Your task to perform on an android device: toggle wifi Image 0: 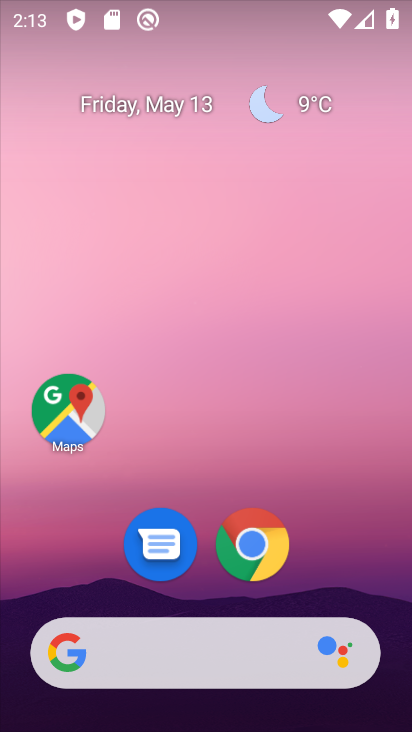
Step 0: drag from (205, 592) to (291, 41)
Your task to perform on an android device: toggle wifi Image 1: 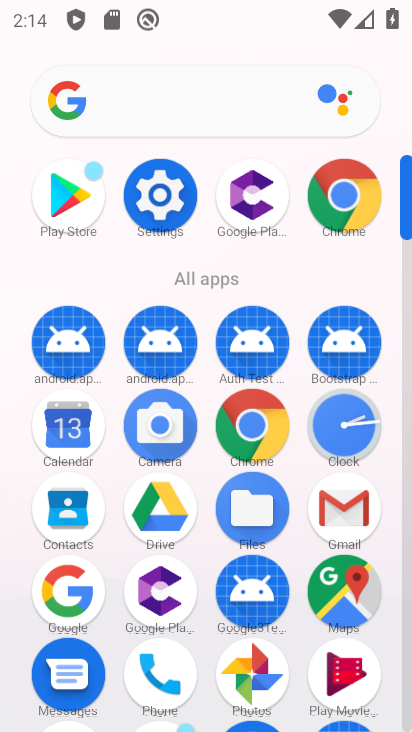
Step 1: drag from (80, 642) to (141, 399)
Your task to perform on an android device: toggle wifi Image 2: 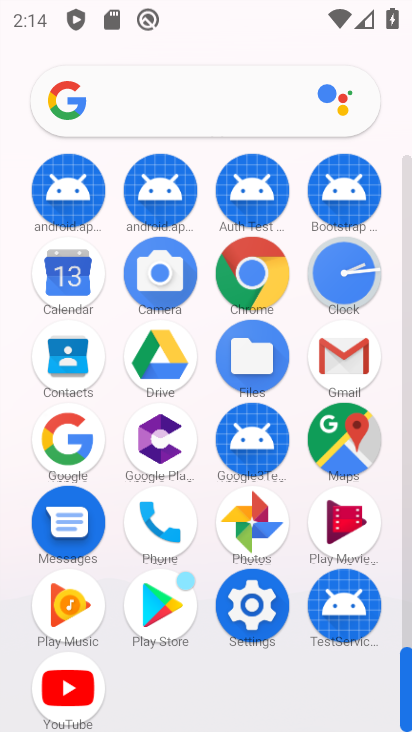
Step 2: click (244, 606)
Your task to perform on an android device: toggle wifi Image 3: 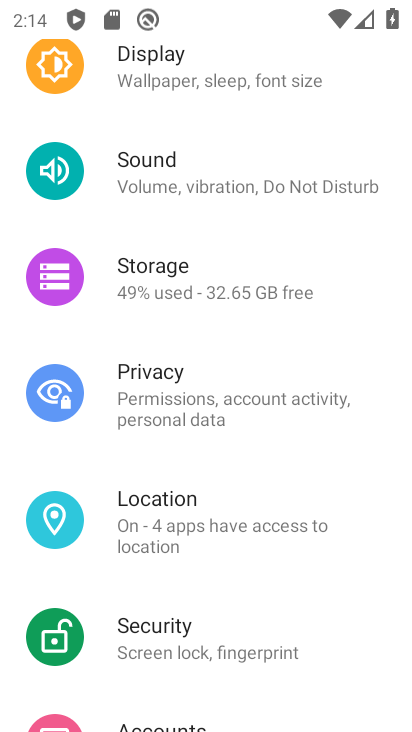
Step 3: drag from (185, 158) to (175, 505)
Your task to perform on an android device: toggle wifi Image 4: 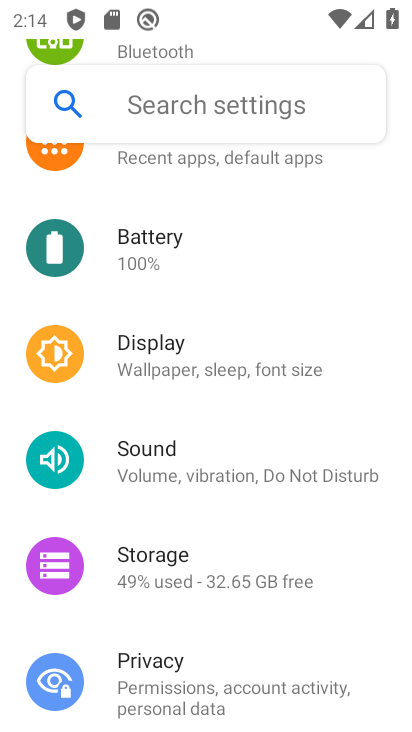
Step 4: drag from (235, 444) to (221, 650)
Your task to perform on an android device: toggle wifi Image 5: 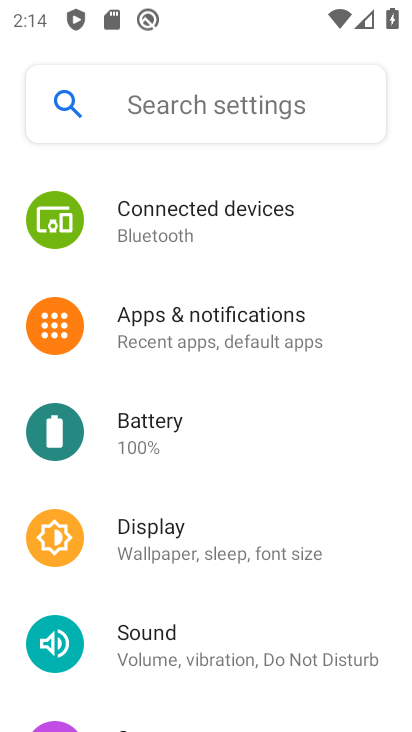
Step 5: drag from (256, 199) to (215, 637)
Your task to perform on an android device: toggle wifi Image 6: 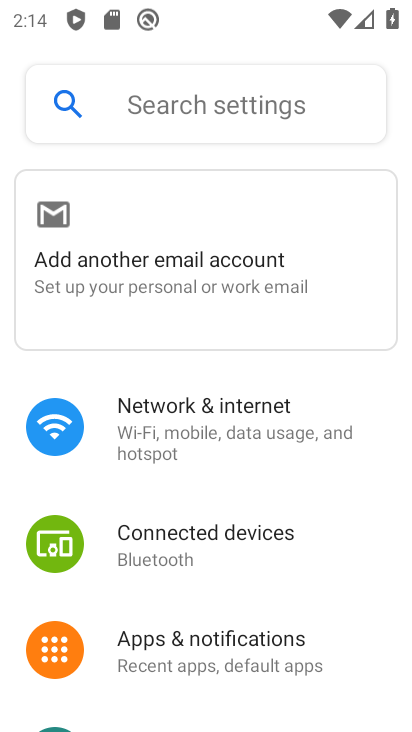
Step 6: click (175, 434)
Your task to perform on an android device: toggle wifi Image 7: 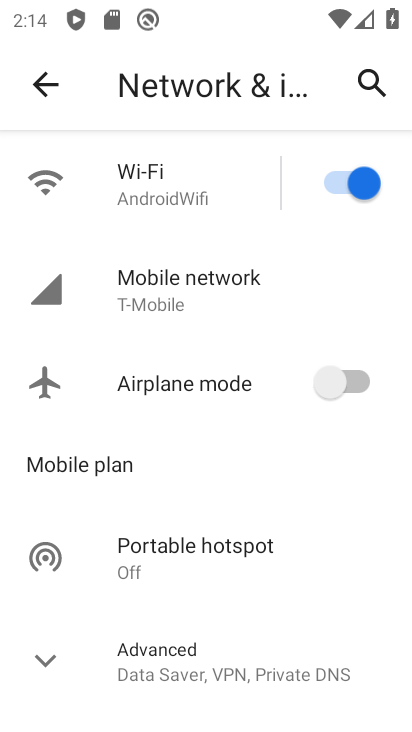
Step 7: click (340, 176)
Your task to perform on an android device: toggle wifi Image 8: 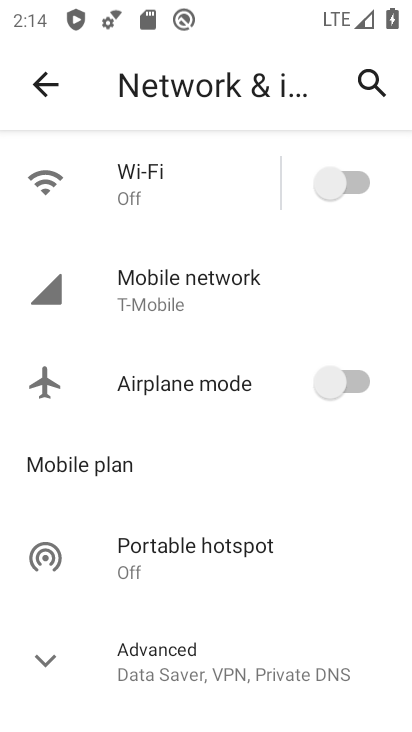
Step 8: task complete